Your task to perform on an android device: Look up the best rated gaming chair on Best Buy Image 0: 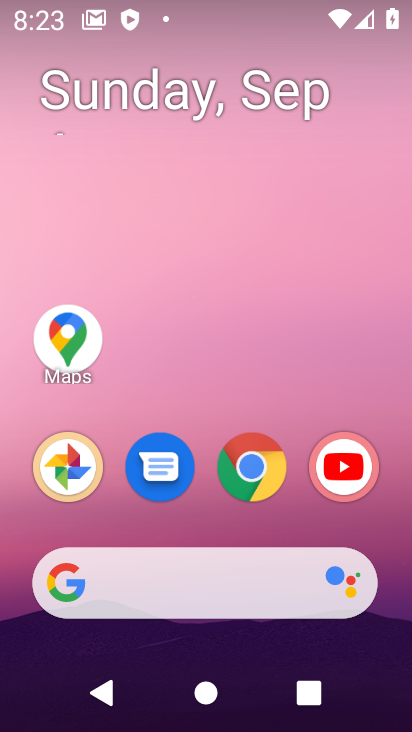
Step 0: click (250, 470)
Your task to perform on an android device: Look up the best rated gaming chair on Best Buy Image 1: 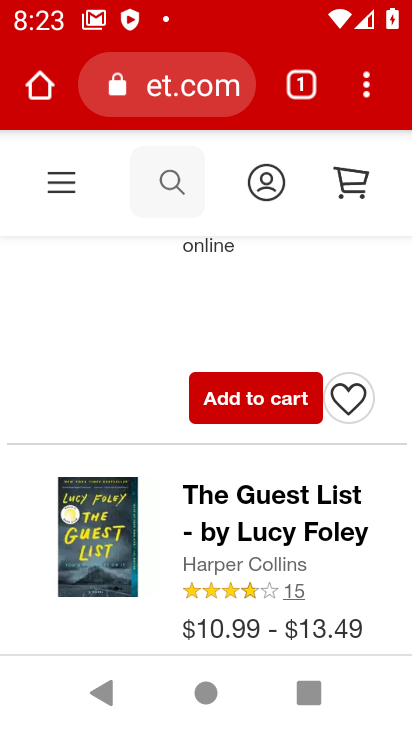
Step 1: click (187, 65)
Your task to perform on an android device: Look up the best rated gaming chair on Best Buy Image 2: 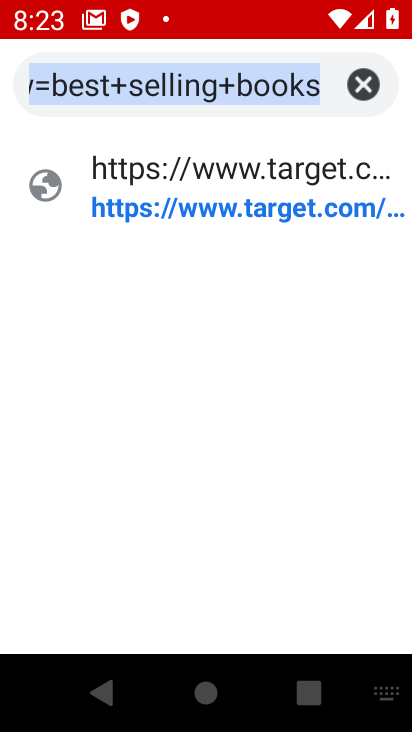
Step 2: click (181, 89)
Your task to perform on an android device: Look up the best rated gaming chair on Best Buy Image 3: 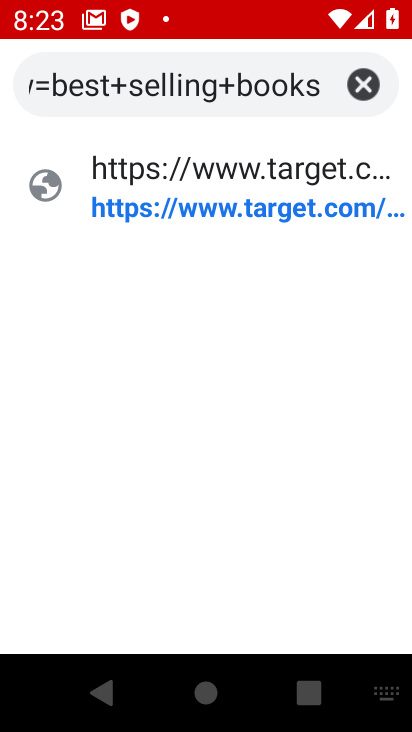
Step 3: click (355, 92)
Your task to perform on an android device: Look up the best rated gaming chair on Best Buy Image 4: 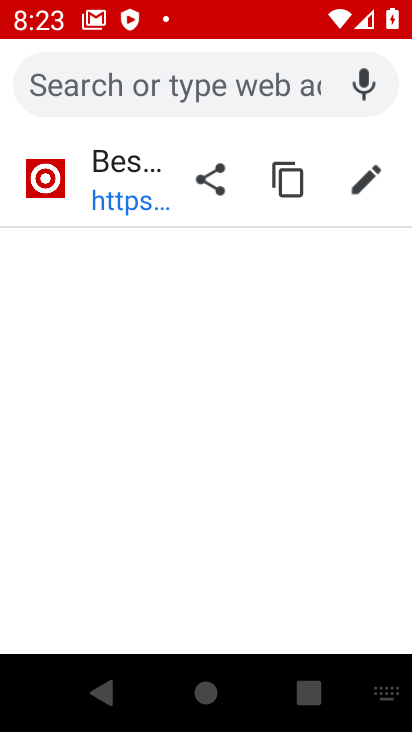
Step 4: type "best buy"
Your task to perform on an android device: Look up the best rated gaming chair on Best Buy Image 5: 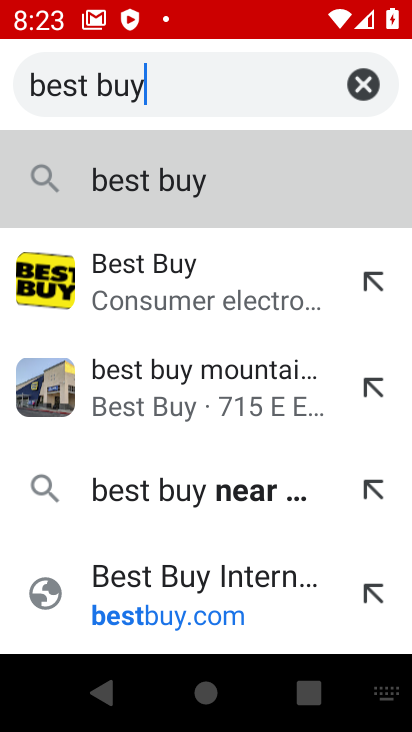
Step 5: click (155, 282)
Your task to perform on an android device: Look up the best rated gaming chair on Best Buy Image 6: 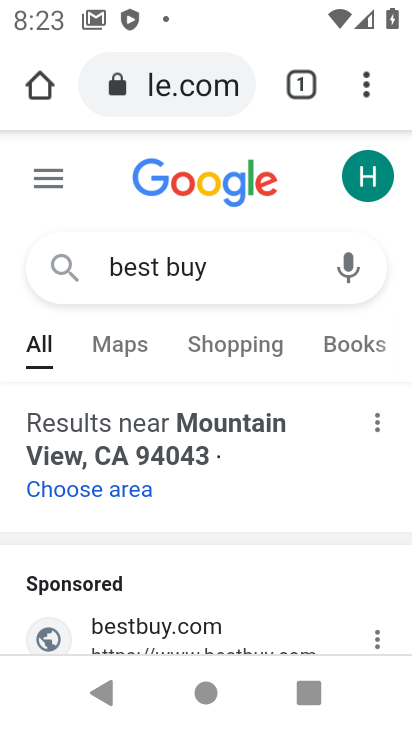
Step 6: drag from (408, 534) to (398, 333)
Your task to perform on an android device: Look up the best rated gaming chair on Best Buy Image 7: 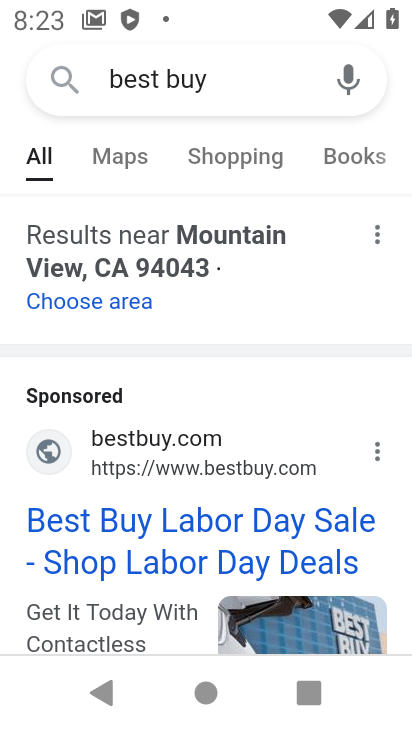
Step 7: click (118, 522)
Your task to perform on an android device: Look up the best rated gaming chair on Best Buy Image 8: 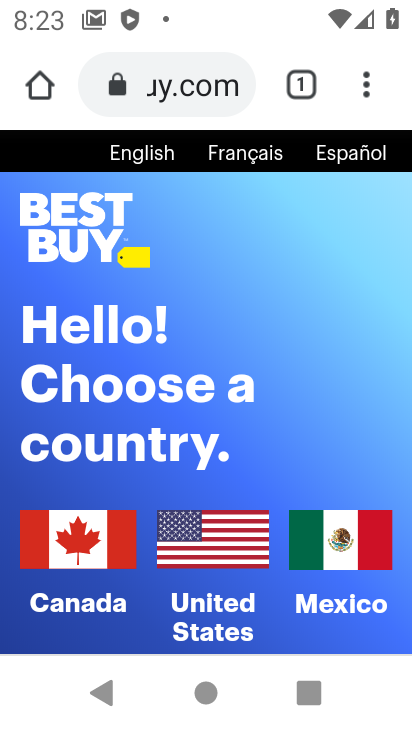
Step 8: click (218, 536)
Your task to perform on an android device: Look up the best rated gaming chair on Best Buy Image 9: 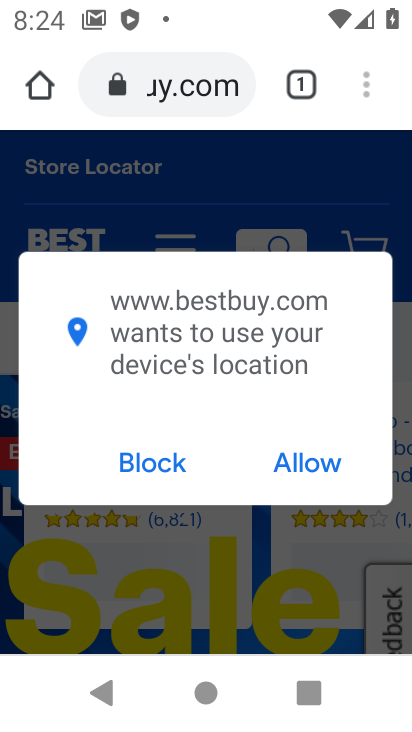
Step 9: click (322, 467)
Your task to perform on an android device: Look up the best rated gaming chair on Best Buy Image 10: 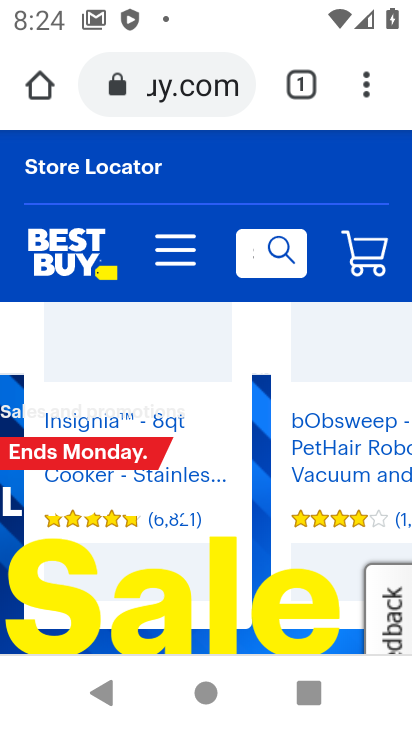
Step 10: click (287, 250)
Your task to perform on an android device: Look up the best rated gaming chair on Best Buy Image 11: 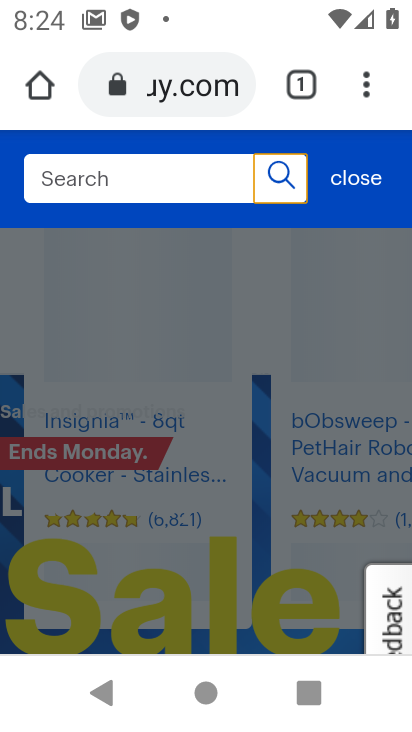
Step 11: click (137, 171)
Your task to perform on an android device: Look up the best rated gaming chair on Best Buy Image 12: 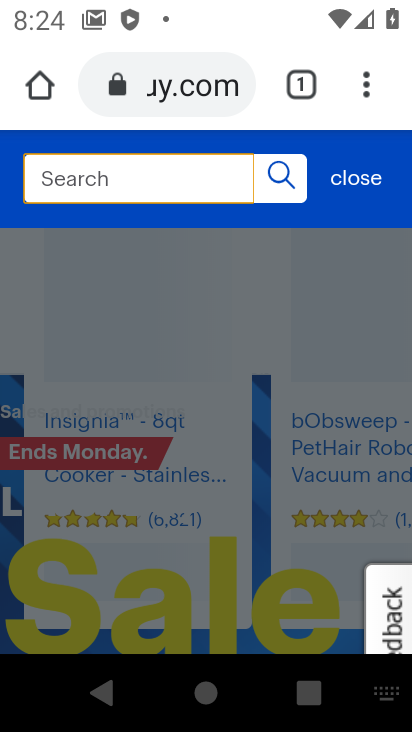
Step 12: type "gaming chair"
Your task to perform on an android device: Look up the best rated gaming chair on Best Buy Image 13: 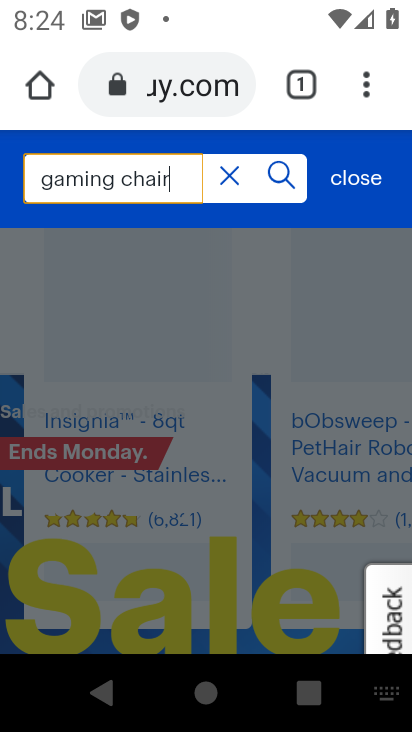
Step 13: type ""
Your task to perform on an android device: Look up the best rated gaming chair on Best Buy Image 14: 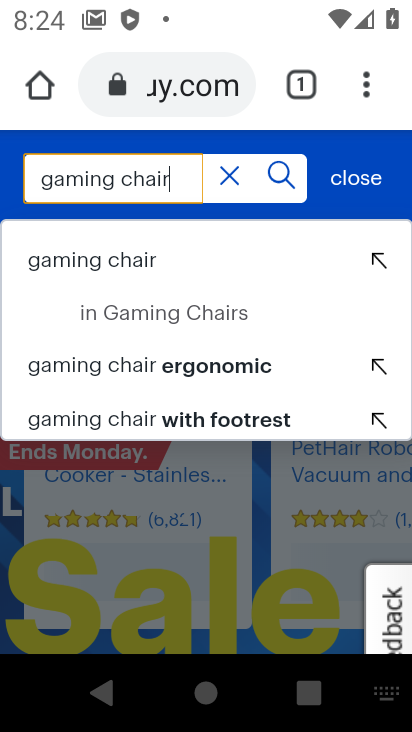
Step 14: click (64, 265)
Your task to perform on an android device: Look up the best rated gaming chair on Best Buy Image 15: 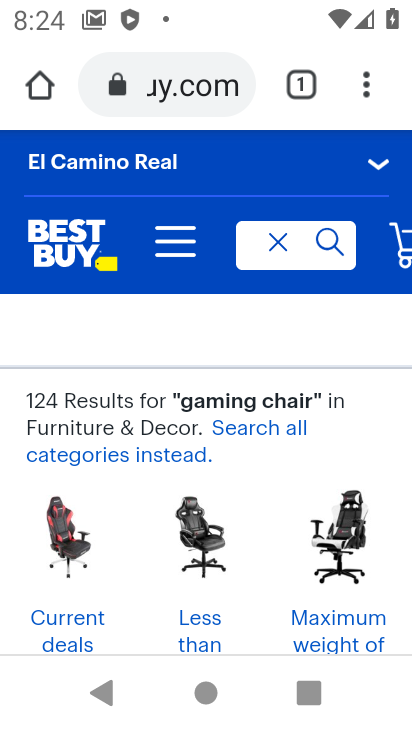
Step 15: drag from (399, 409) to (399, 345)
Your task to perform on an android device: Look up the best rated gaming chair on Best Buy Image 16: 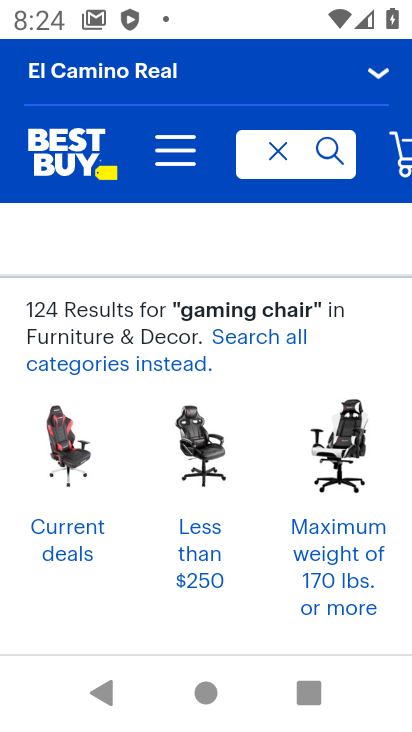
Step 16: click (166, 153)
Your task to perform on an android device: Look up the best rated gaming chair on Best Buy Image 17: 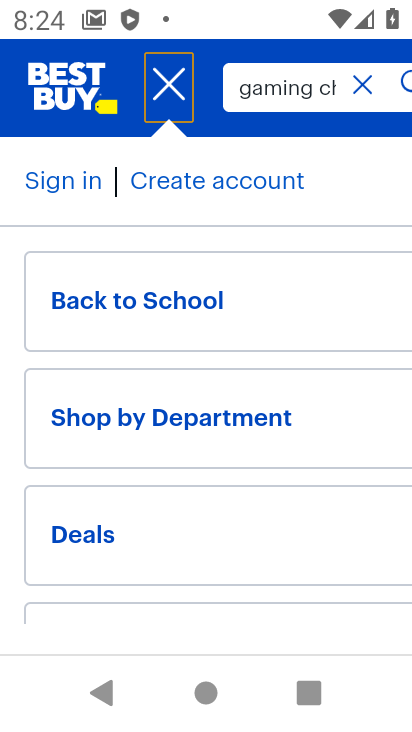
Step 17: press back button
Your task to perform on an android device: Look up the best rated gaming chair on Best Buy Image 18: 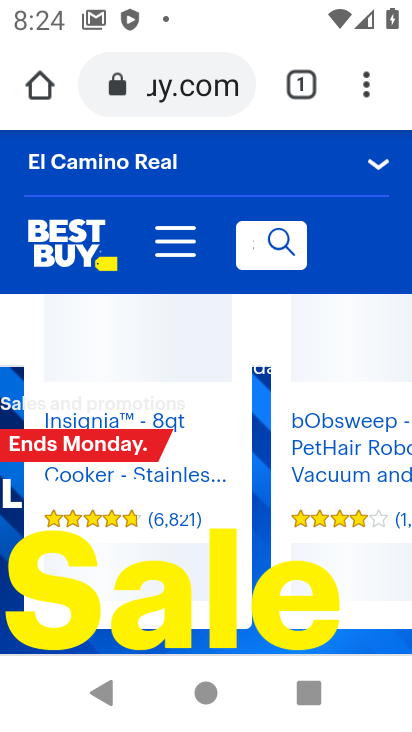
Step 18: click (279, 235)
Your task to perform on an android device: Look up the best rated gaming chair on Best Buy Image 19: 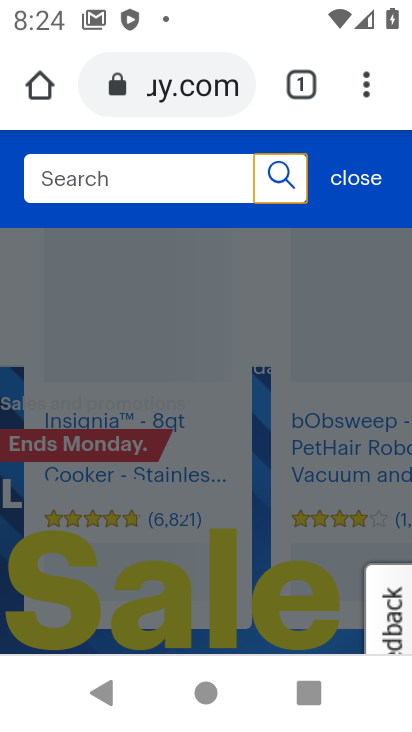
Step 19: click (266, 180)
Your task to perform on an android device: Look up the best rated gaming chair on Best Buy Image 20: 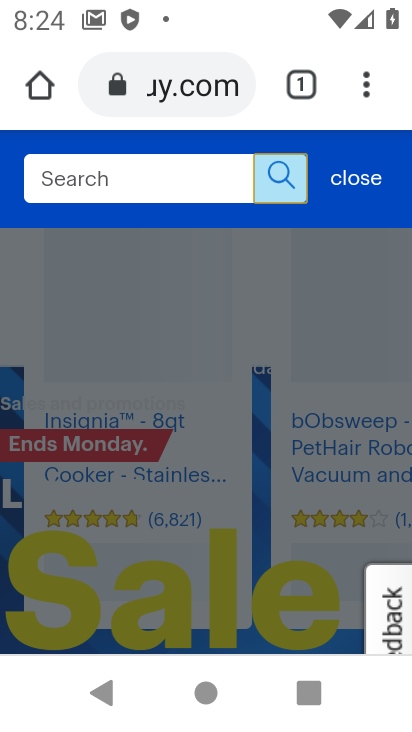
Step 20: click (171, 188)
Your task to perform on an android device: Look up the best rated gaming chair on Best Buy Image 21: 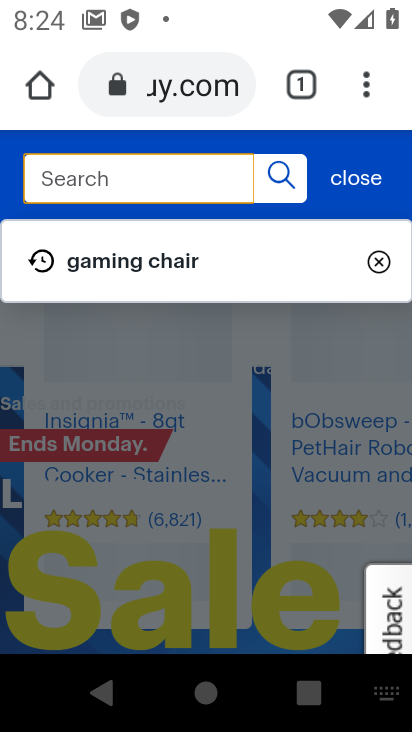
Step 21: click (161, 267)
Your task to perform on an android device: Look up the best rated gaming chair on Best Buy Image 22: 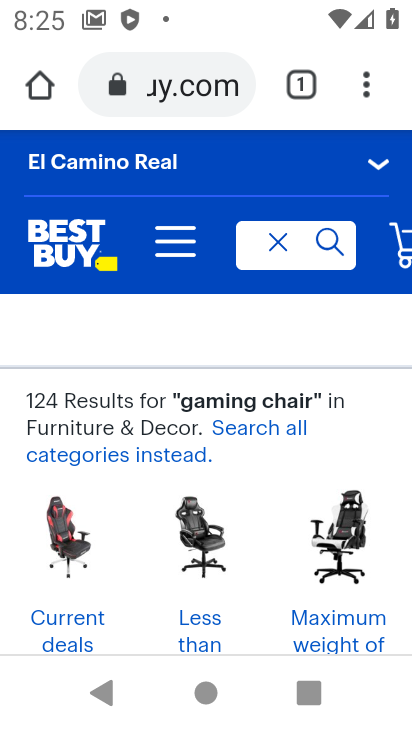
Step 22: drag from (286, 325) to (290, 286)
Your task to perform on an android device: Look up the best rated gaming chair on Best Buy Image 23: 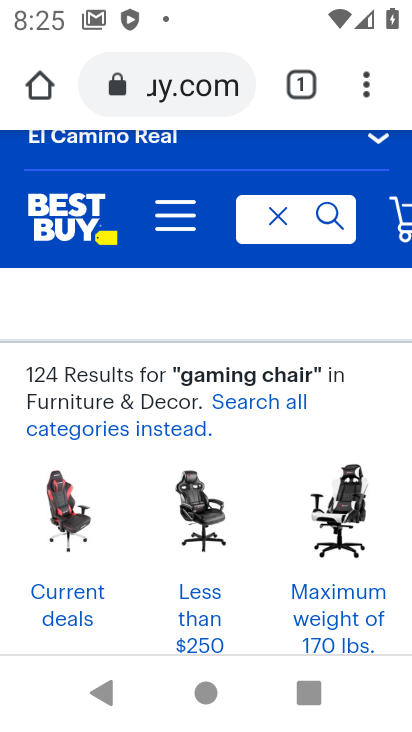
Step 23: drag from (121, 557) to (145, 288)
Your task to perform on an android device: Look up the best rated gaming chair on Best Buy Image 24: 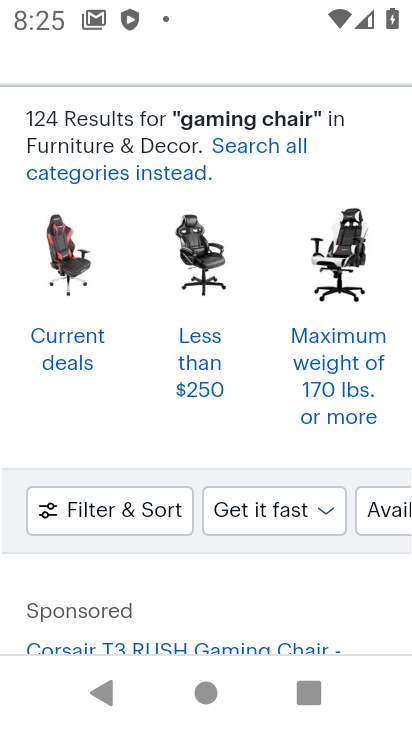
Step 24: click (133, 513)
Your task to perform on an android device: Look up the best rated gaming chair on Best Buy Image 25: 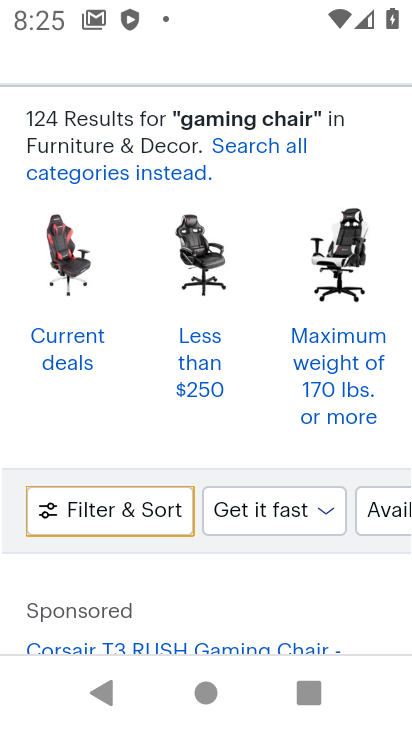
Step 25: click (84, 510)
Your task to perform on an android device: Look up the best rated gaming chair on Best Buy Image 26: 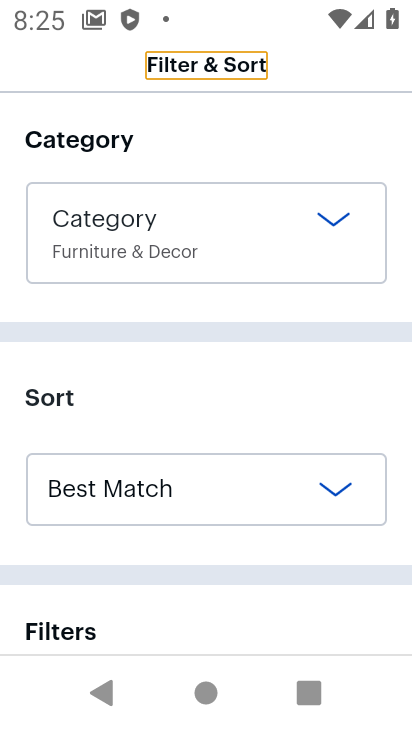
Step 26: drag from (215, 502) to (279, 167)
Your task to perform on an android device: Look up the best rated gaming chair on Best Buy Image 27: 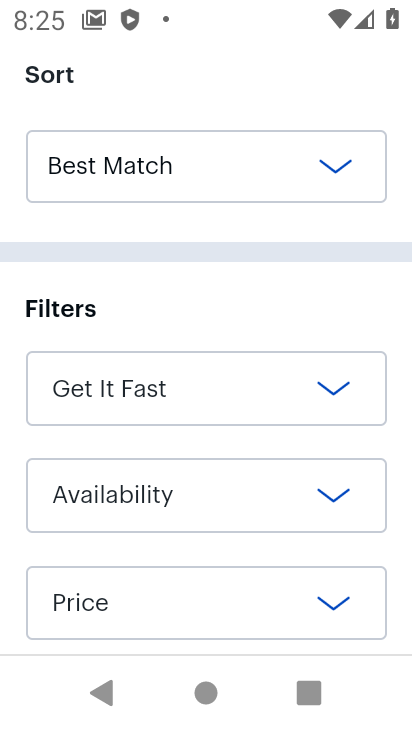
Step 27: drag from (250, 559) to (275, 183)
Your task to perform on an android device: Look up the best rated gaming chair on Best Buy Image 28: 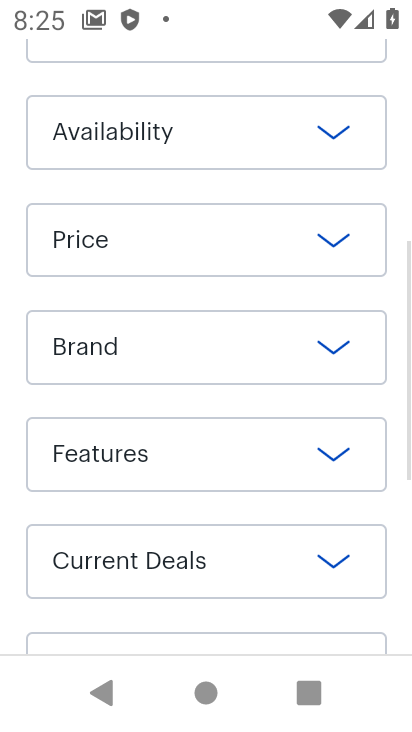
Step 28: drag from (223, 472) to (266, 98)
Your task to perform on an android device: Look up the best rated gaming chair on Best Buy Image 29: 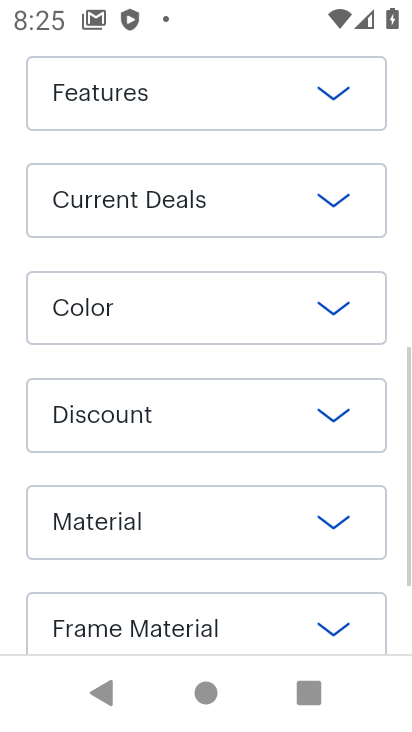
Step 29: drag from (234, 525) to (258, 137)
Your task to perform on an android device: Look up the best rated gaming chair on Best Buy Image 30: 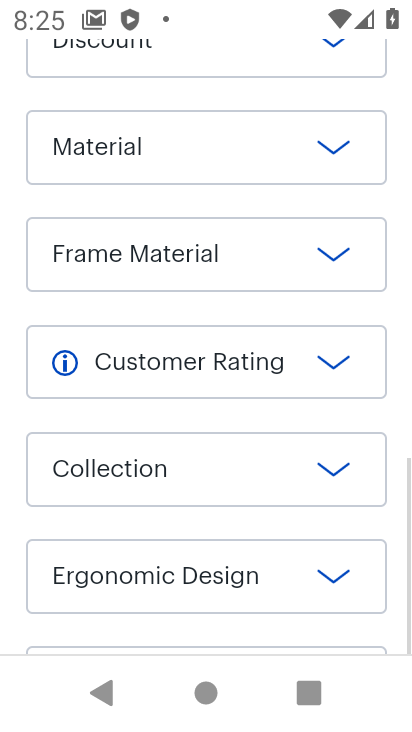
Step 30: drag from (226, 513) to (310, 68)
Your task to perform on an android device: Look up the best rated gaming chair on Best Buy Image 31: 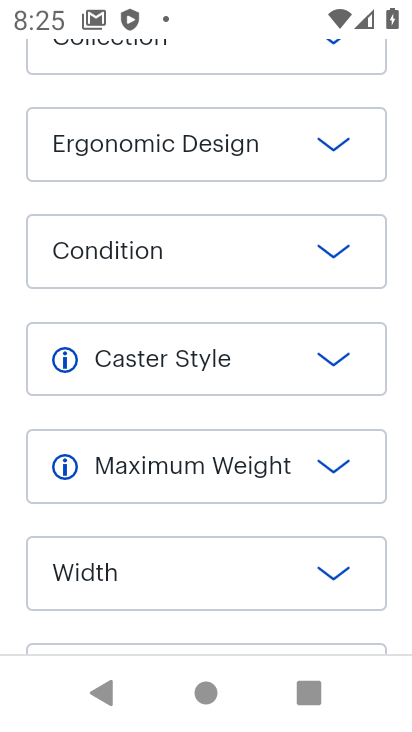
Step 31: drag from (400, 199) to (335, 228)
Your task to perform on an android device: Look up the best rated gaming chair on Best Buy Image 32: 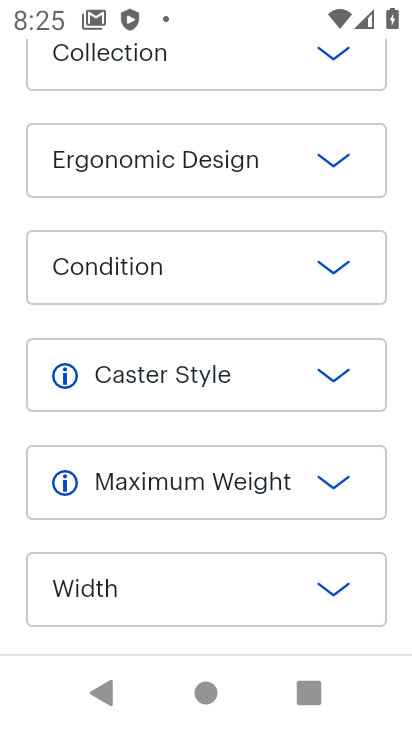
Step 32: drag from (402, 422) to (353, 577)
Your task to perform on an android device: Look up the best rated gaming chair on Best Buy Image 33: 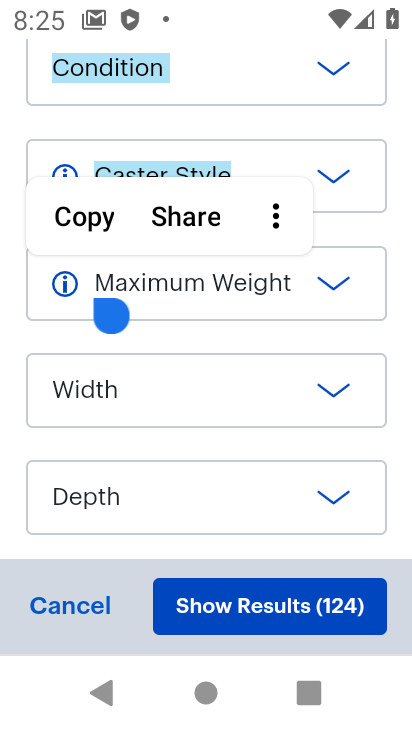
Step 33: drag from (391, 339) to (408, 505)
Your task to perform on an android device: Look up the best rated gaming chair on Best Buy Image 34: 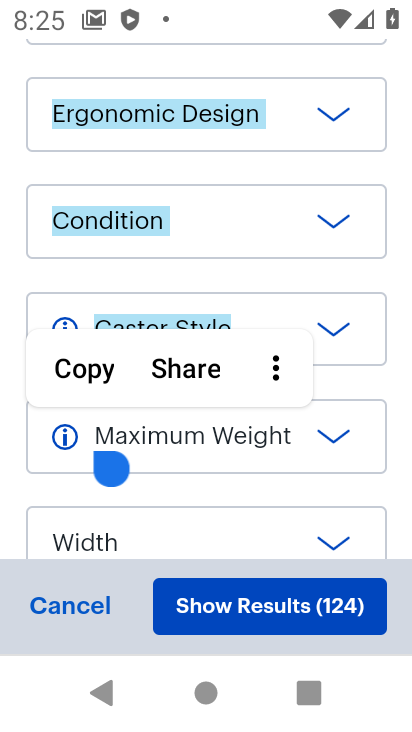
Step 34: drag from (398, 289) to (331, 712)
Your task to perform on an android device: Look up the best rated gaming chair on Best Buy Image 35: 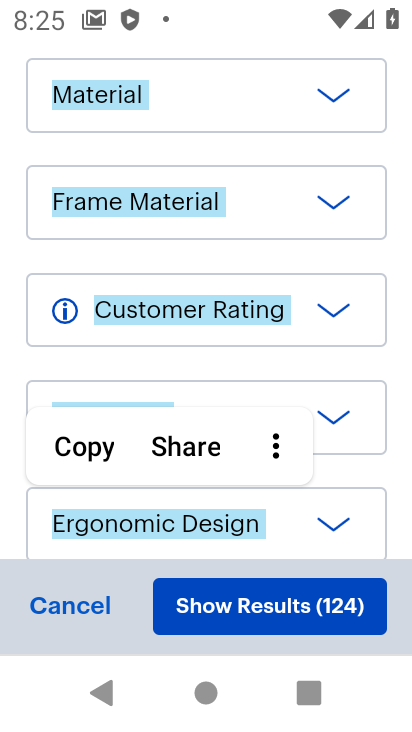
Step 35: drag from (411, 382) to (411, 526)
Your task to perform on an android device: Look up the best rated gaming chair on Best Buy Image 36: 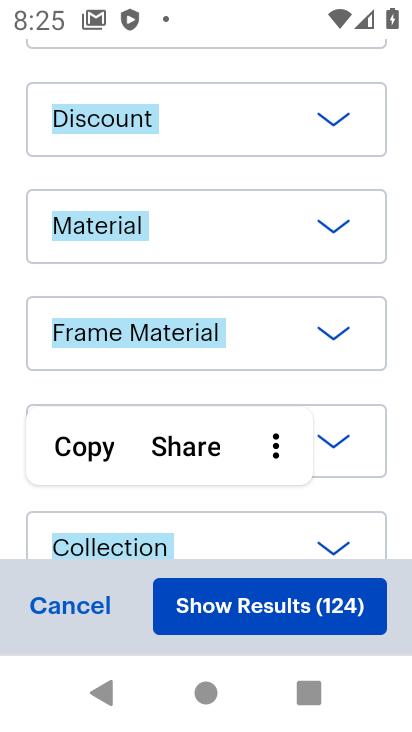
Step 36: drag from (399, 204) to (396, 626)
Your task to perform on an android device: Look up the best rated gaming chair on Best Buy Image 37: 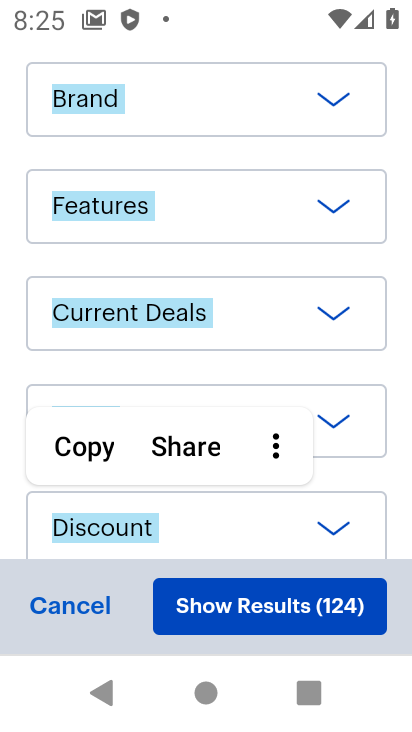
Step 37: drag from (394, 122) to (394, 678)
Your task to perform on an android device: Look up the best rated gaming chair on Best Buy Image 38: 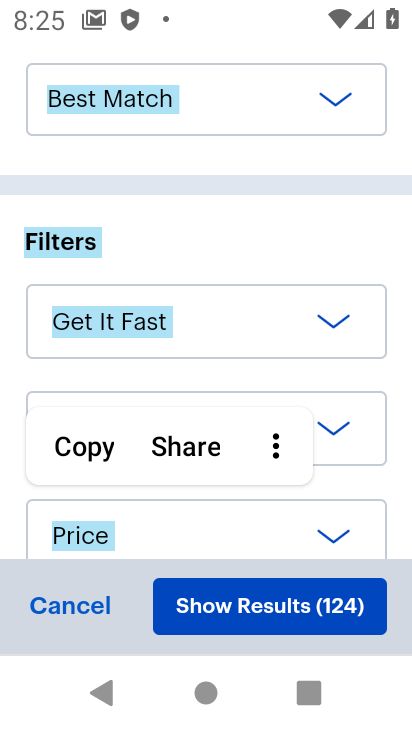
Step 38: drag from (403, 99) to (399, 619)
Your task to perform on an android device: Look up the best rated gaming chair on Best Buy Image 39: 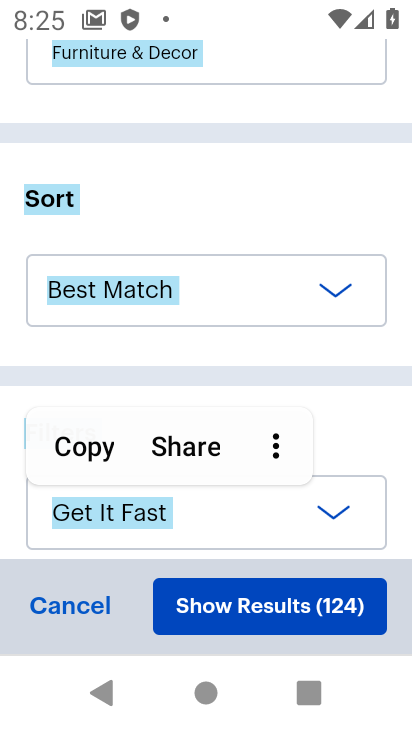
Step 39: drag from (391, 180) to (401, 724)
Your task to perform on an android device: Look up the best rated gaming chair on Best Buy Image 40: 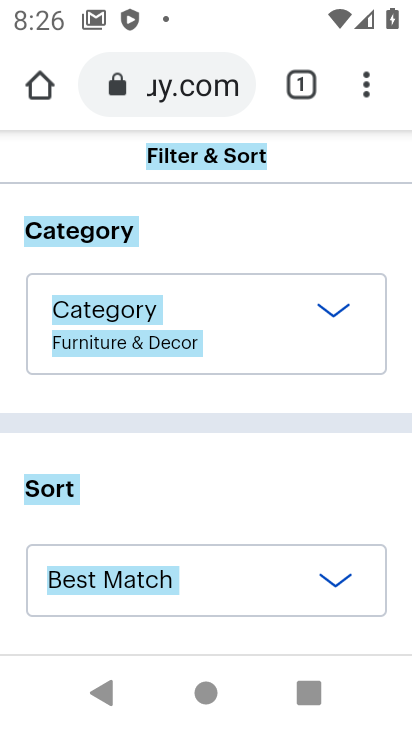
Step 40: drag from (388, 263) to (70, 592)
Your task to perform on an android device: Look up the best rated gaming chair on Best Buy Image 41: 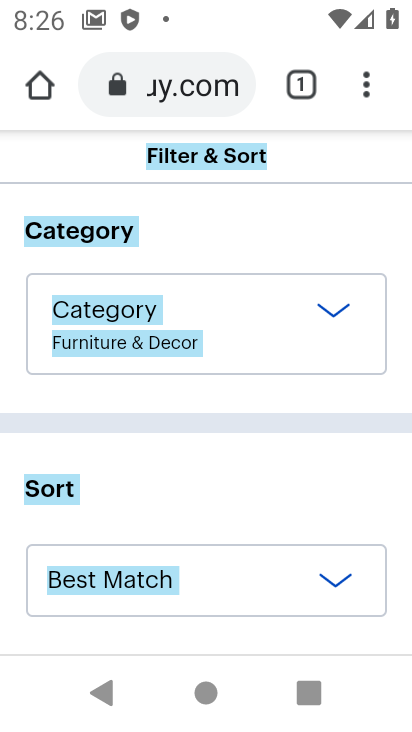
Step 41: click (327, 310)
Your task to perform on an android device: Look up the best rated gaming chair on Best Buy Image 42: 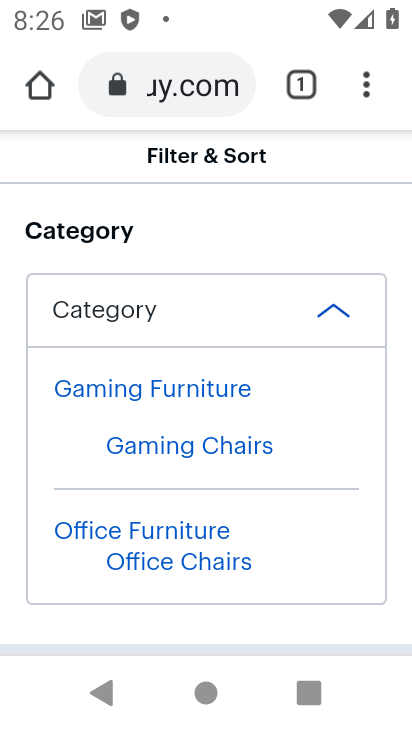
Step 42: click (158, 442)
Your task to perform on an android device: Look up the best rated gaming chair on Best Buy Image 43: 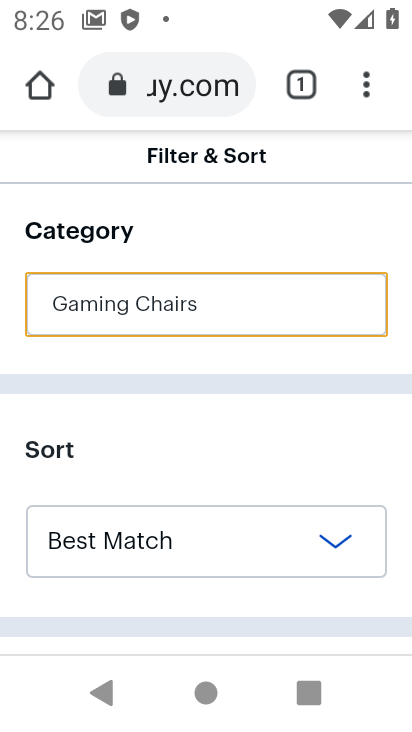
Step 43: task complete